Your task to perform on an android device: Go to sound settings Image 0: 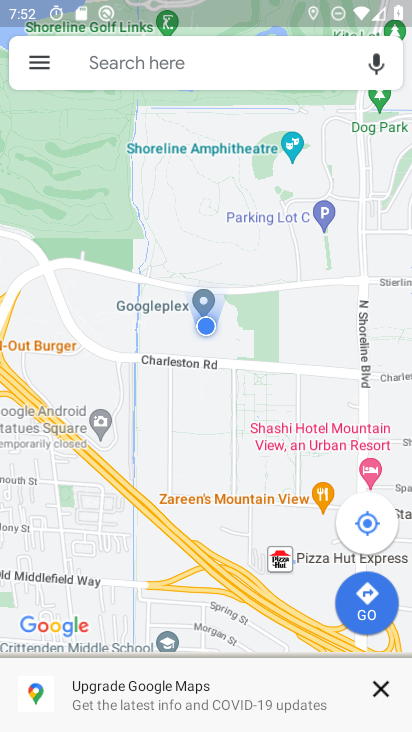
Step 0: press home button
Your task to perform on an android device: Go to sound settings Image 1: 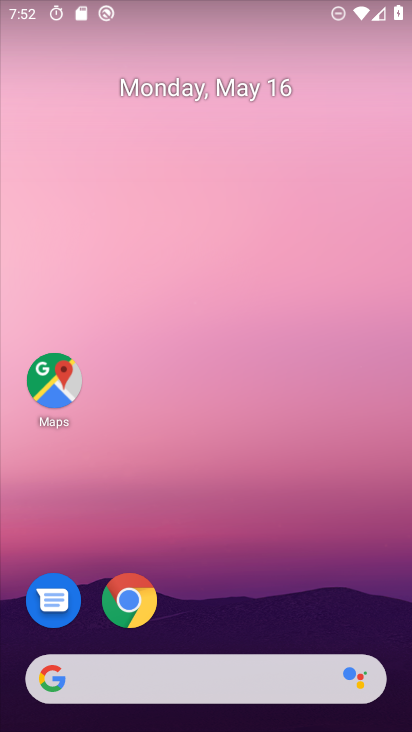
Step 1: drag from (153, 620) to (301, 178)
Your task to perform on an android device: Go to sound settings Image 2: 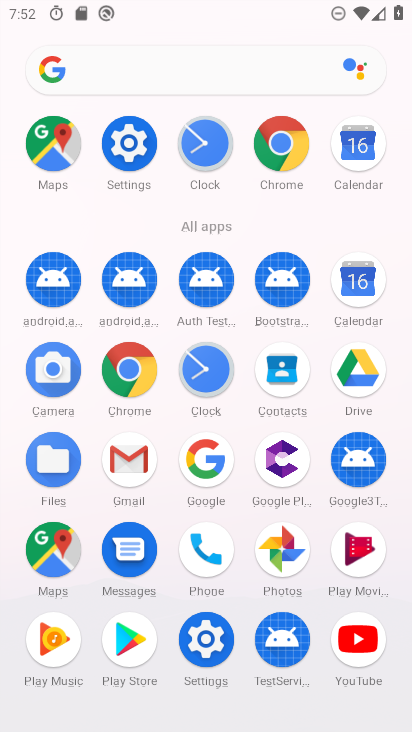
Step 2: click (129, 147)
Your task to perform on an android device: Go to sound settings Image 3: 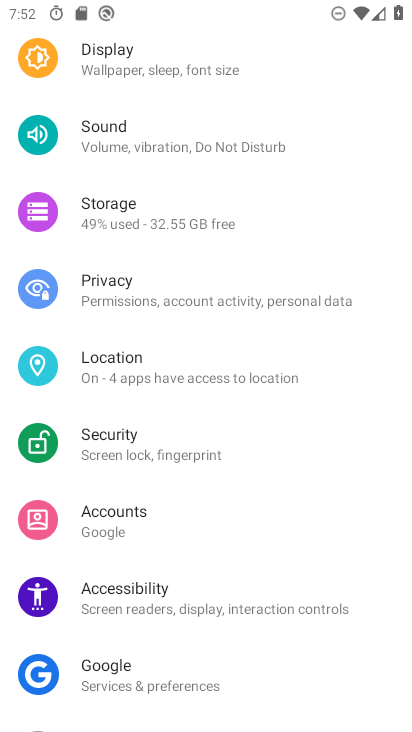
Step 3: click (212, 142)
Your task to perform on an android device: Go to sound settings Image 4: 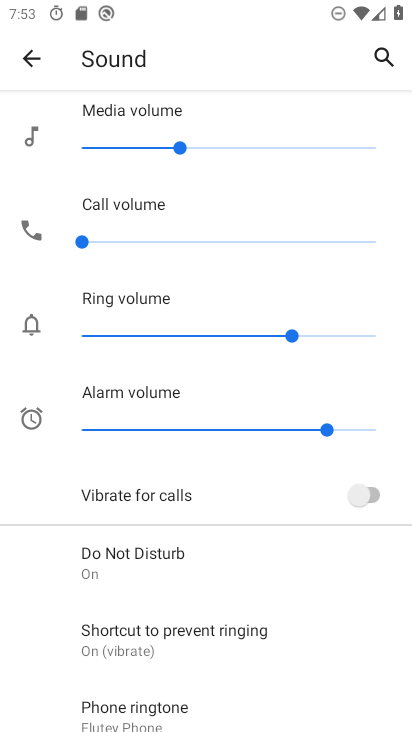
Step 4: task complete